Your task to perform on an android device: toggle notifications settings in the gmail app Image 0: 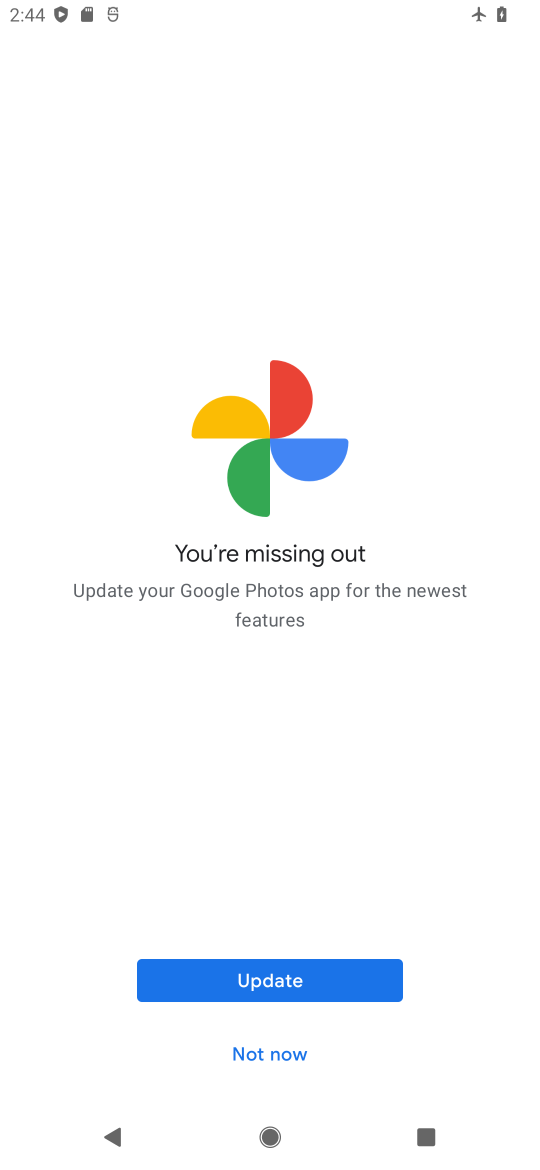
Step 0: press home button
Your task to perform on an android device: toggle notifications settings in the gmail app Image 1: 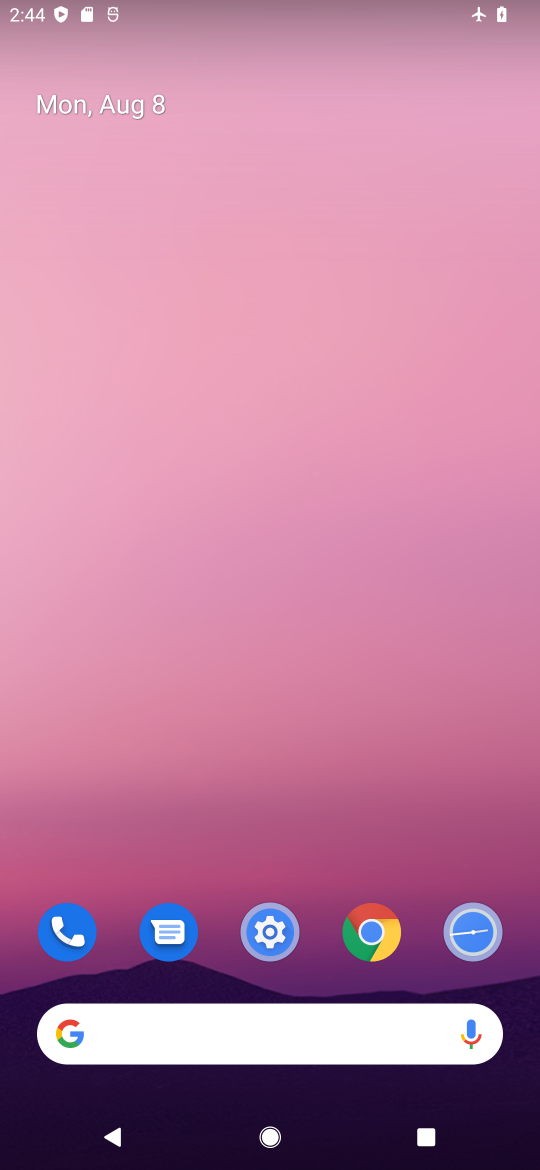
Step 1: drag from (325, 939) to (385, 242)
Your task to perform on an android device: toggle notifications settings in the gmail app Image 2: 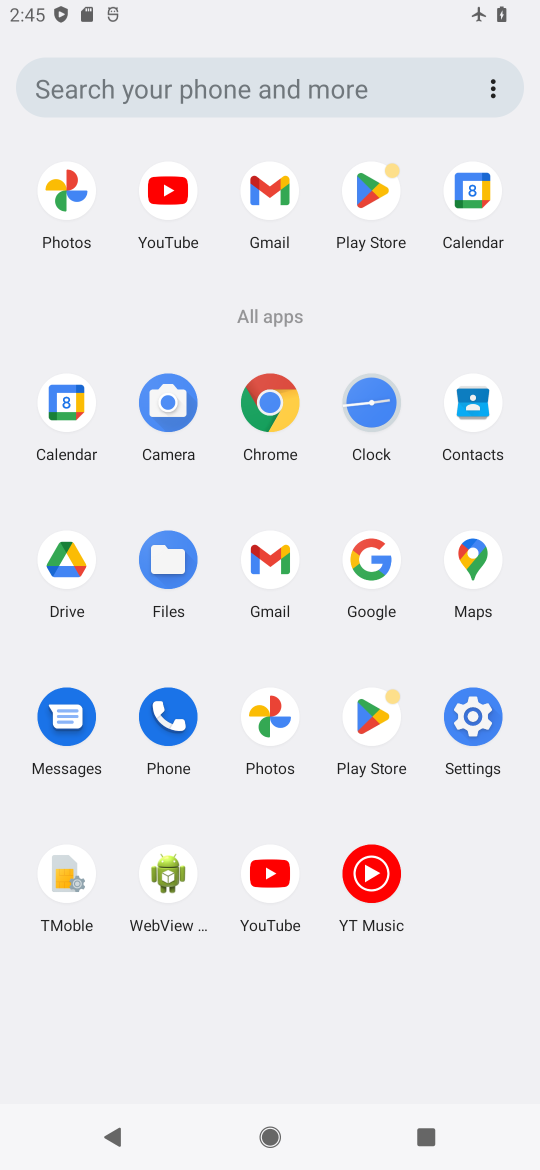
Step 2: click (290, 558)
Your task to perform on an android device: toggle notifications settings in the gmail app Image 3: 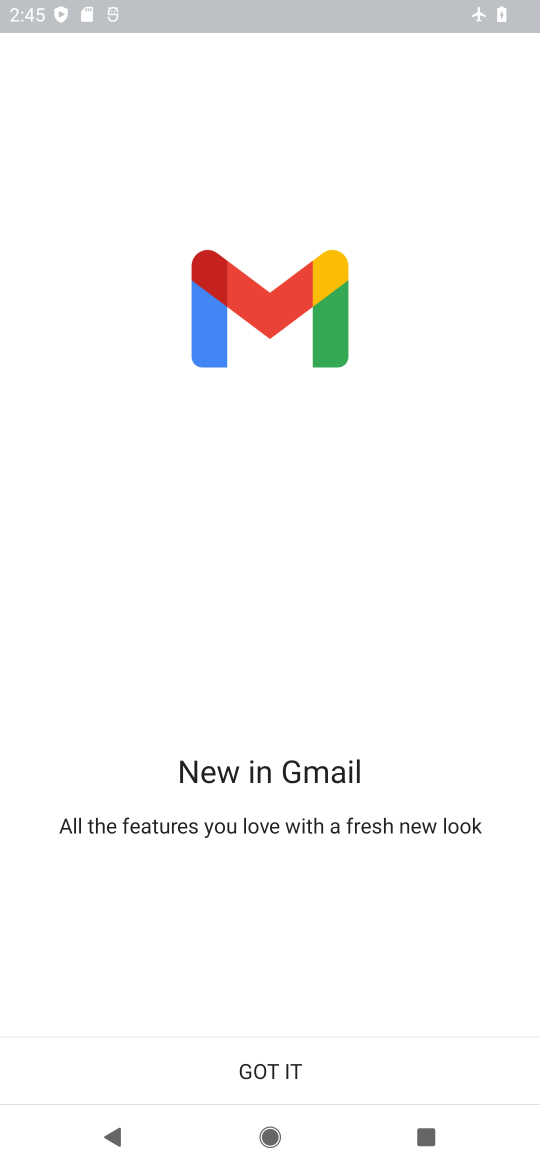
Step 3: click (244, 1084)
Your task to perform on an android device: toggle notifications settings in the gmail app Image 4: 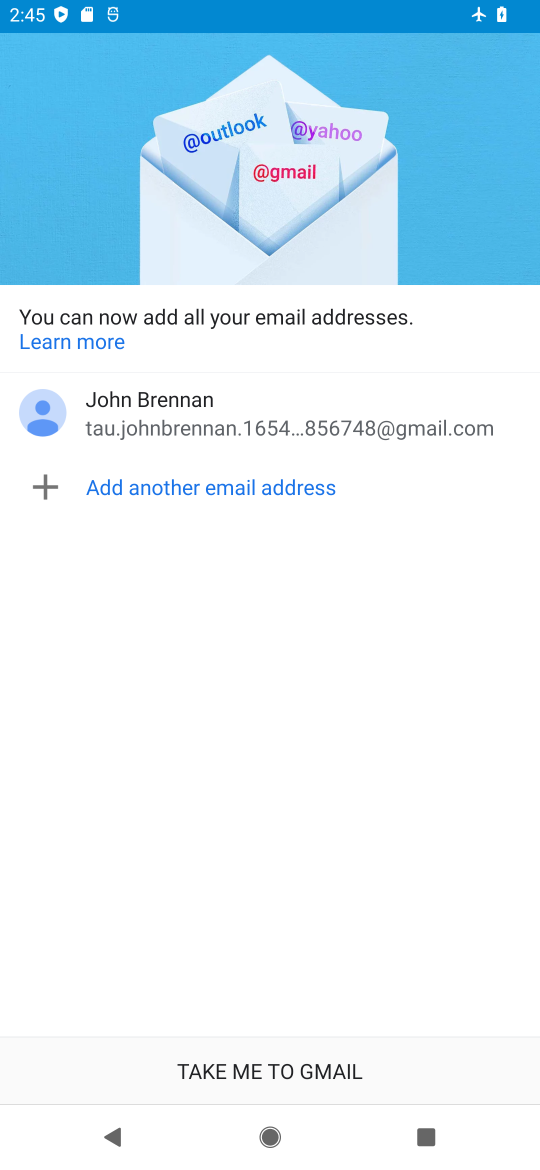
Step 4: click (244, 1084)
Your task to perform on an android device: toggle notifications settings in the gmail app Image 5: 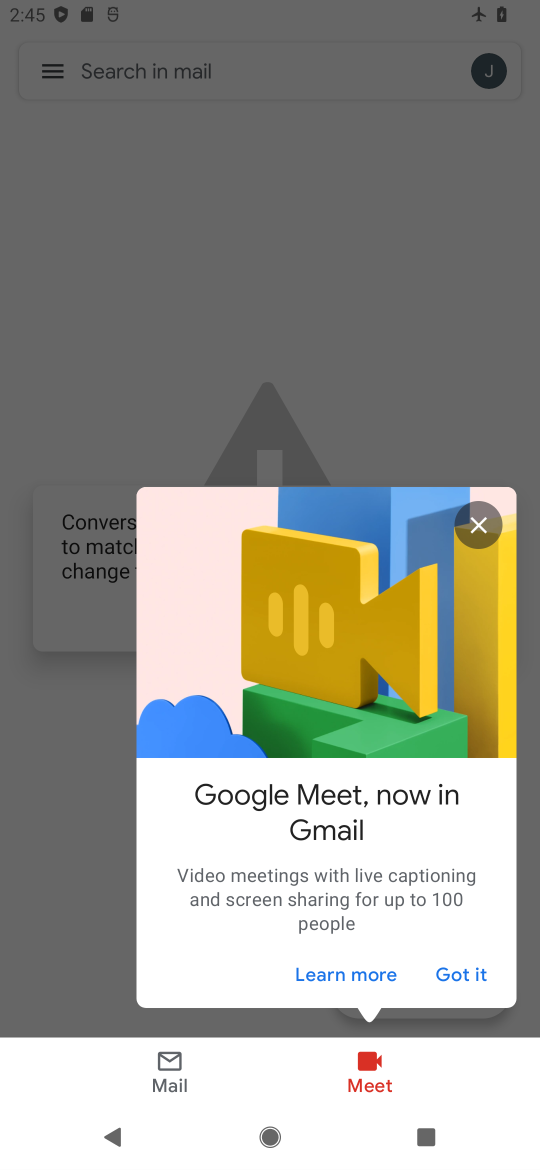
Step 5: click (177, 1045)
Your task to perform on an android device: toggle notifications settings in the gmail app Image 6: 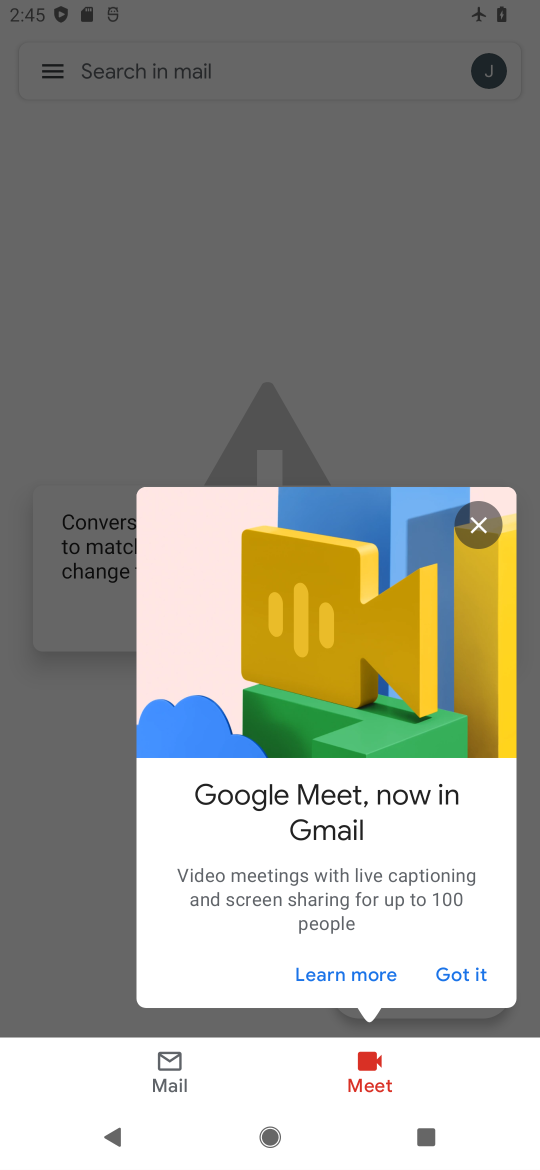
Step 6: click (162, 1061)
Your task to perform on an android device: toggle notifications settings in the gmail app Image 7: 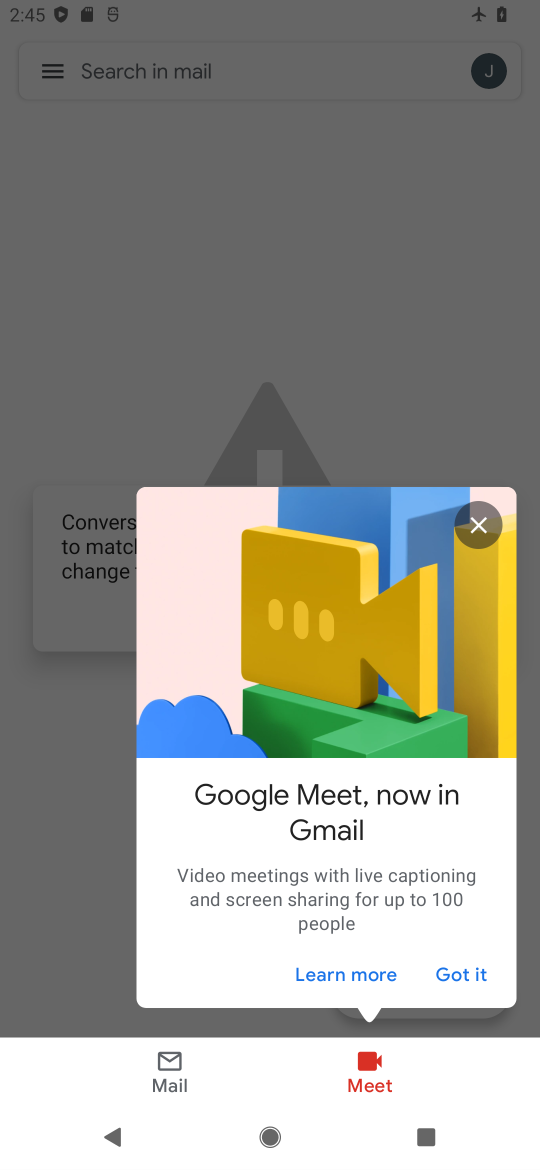
Step 7: click (174, 1055)
Your task to perform on an android device: toggle notifications settings in the gmail app Image 8: 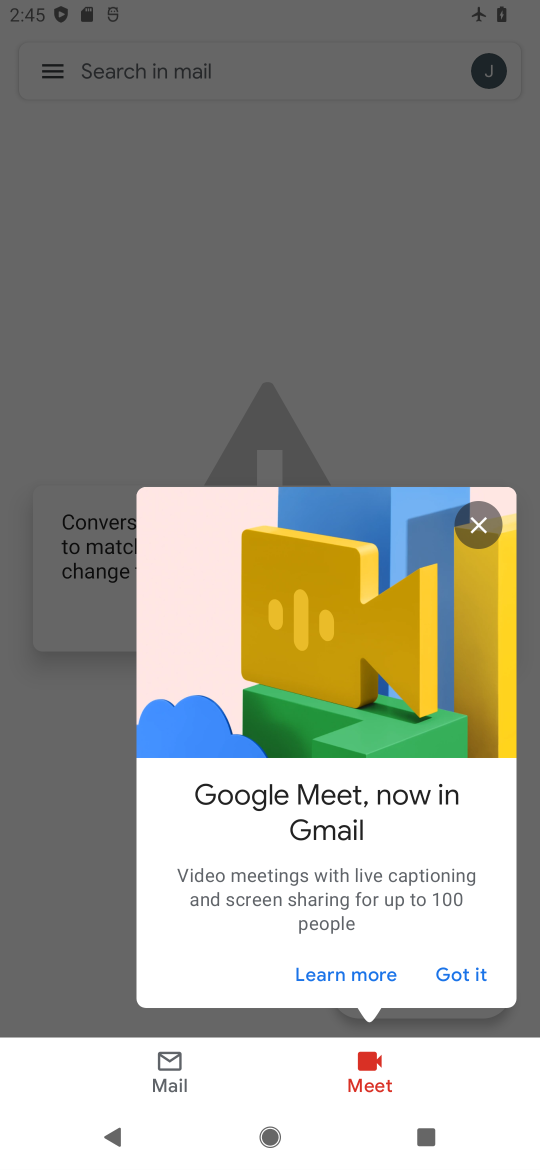
Step 8: click (470, 972)
Your task to perform on an android device: toggle notifications settings in the gmail app Image 9: 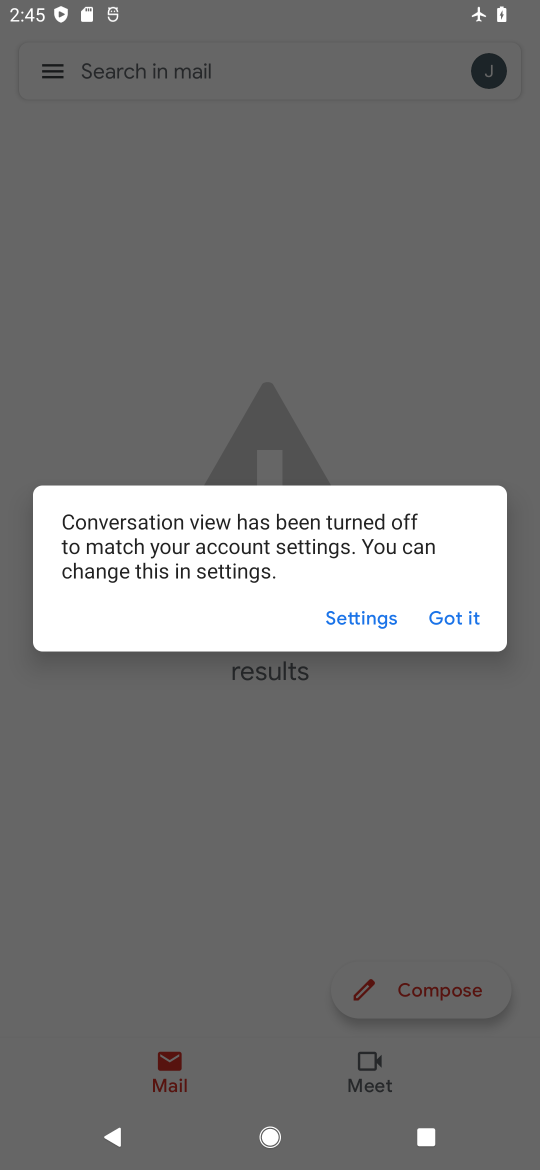
Step 9: click (459, 610)
Your task to perform on an android device: toggle notifications settings in the gmail app Image 10: 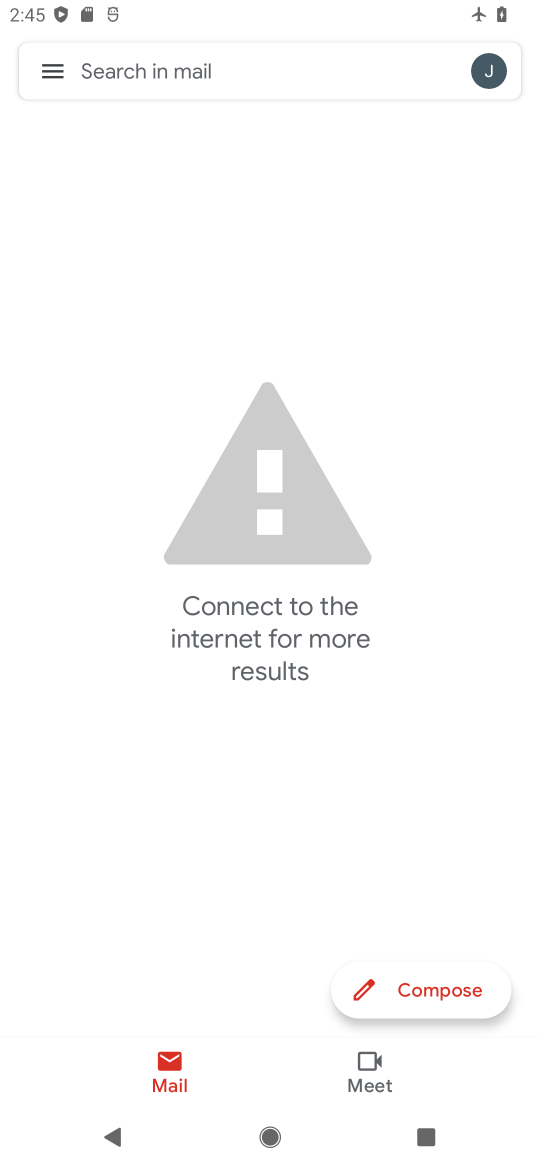
Step 10: click (52, 57)
Your task to perform on an android device: toggle notifications settings in the gmail app Image 11: 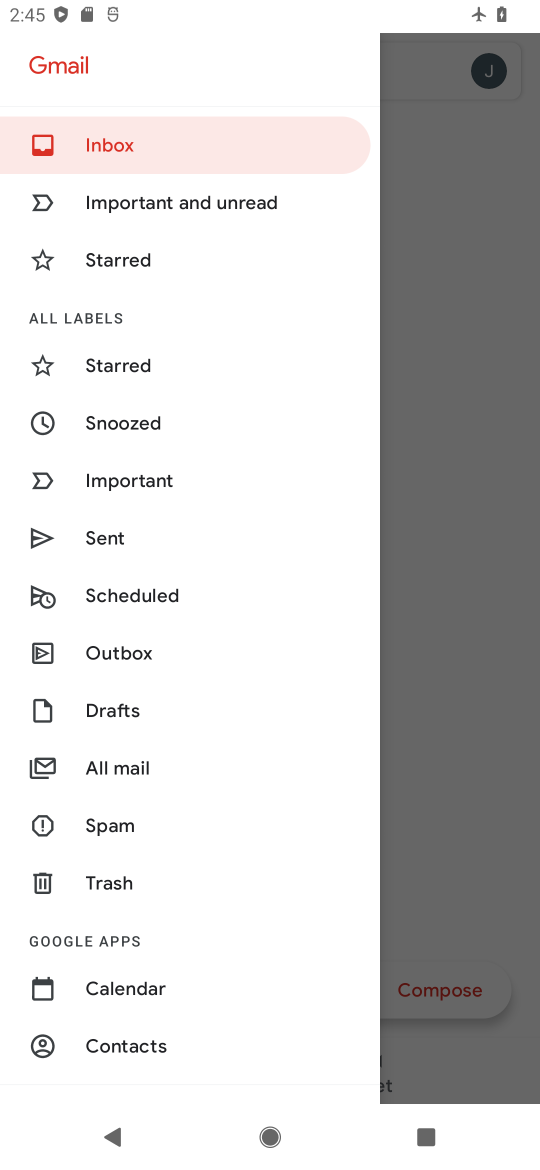
Step 11: drag from (134, 1068) to (236, 561)
Your task to perform on an android device: toggle notifications settings in the gmail app Image 12: 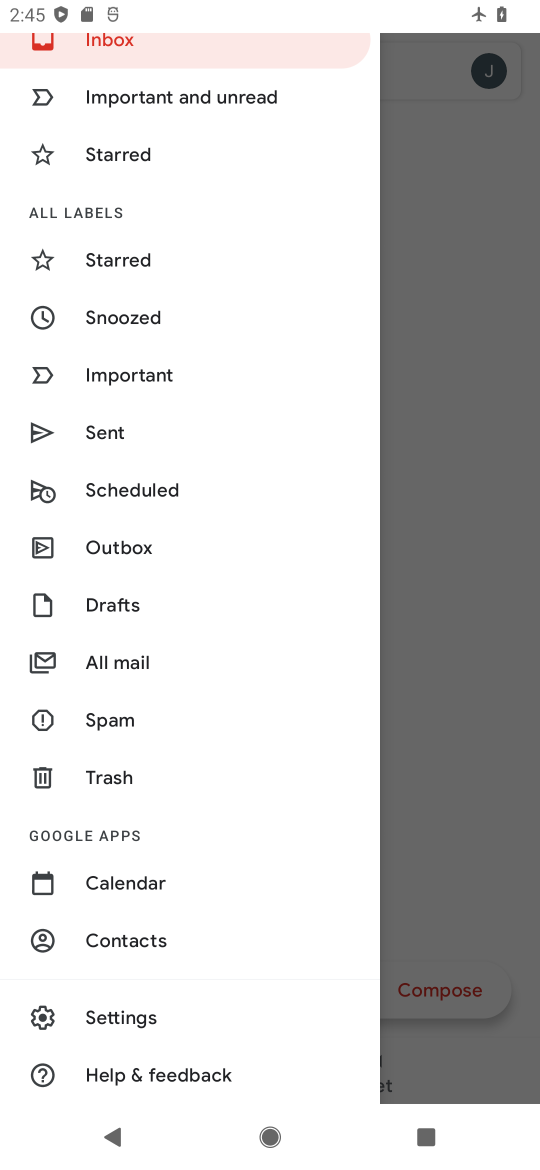
Step 12: click (113, 1014)
Your task to perform on an android device: toggle notifications settings in the gmail app Image 13: 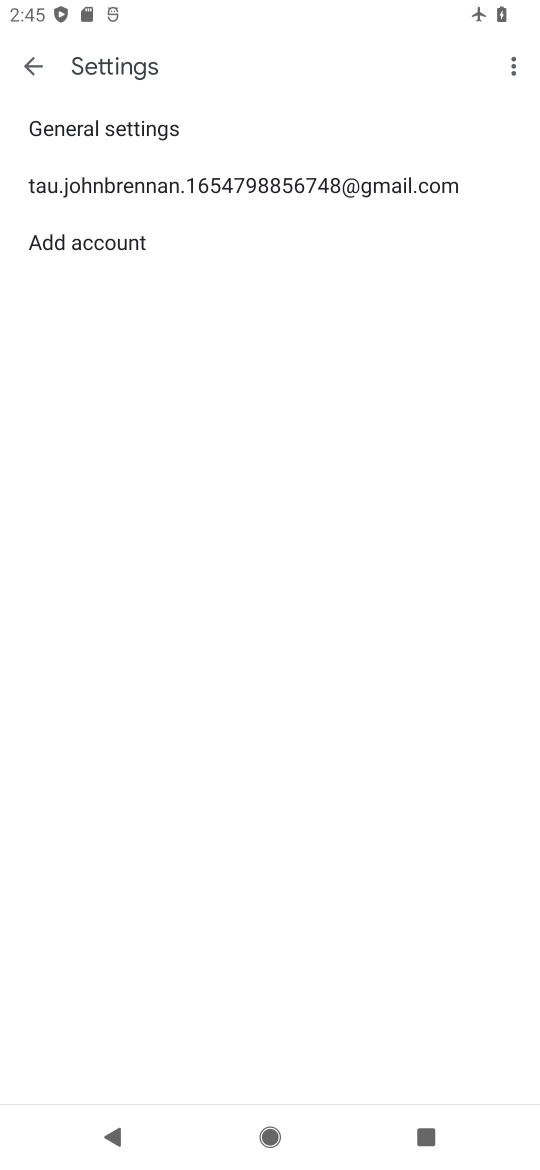
Step 13: click (259, 176)
Your task to perform on an android device: toggle notifications settings in the gmail app Image 14: 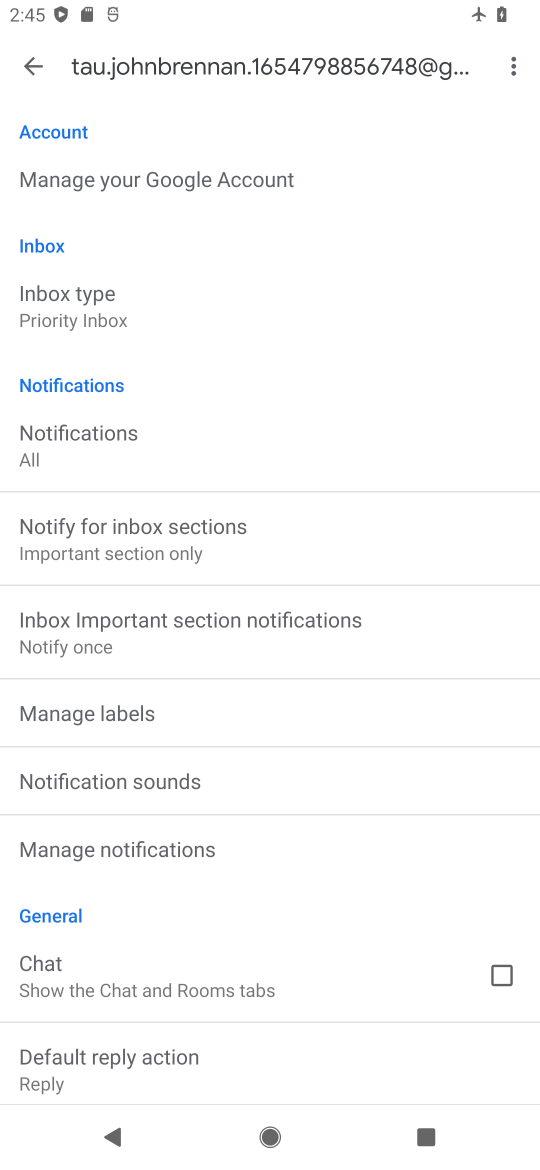
Step 14: click (183, 856)
Your task to perform on an android device: toggle notifications settings in the gmail app Image 15: 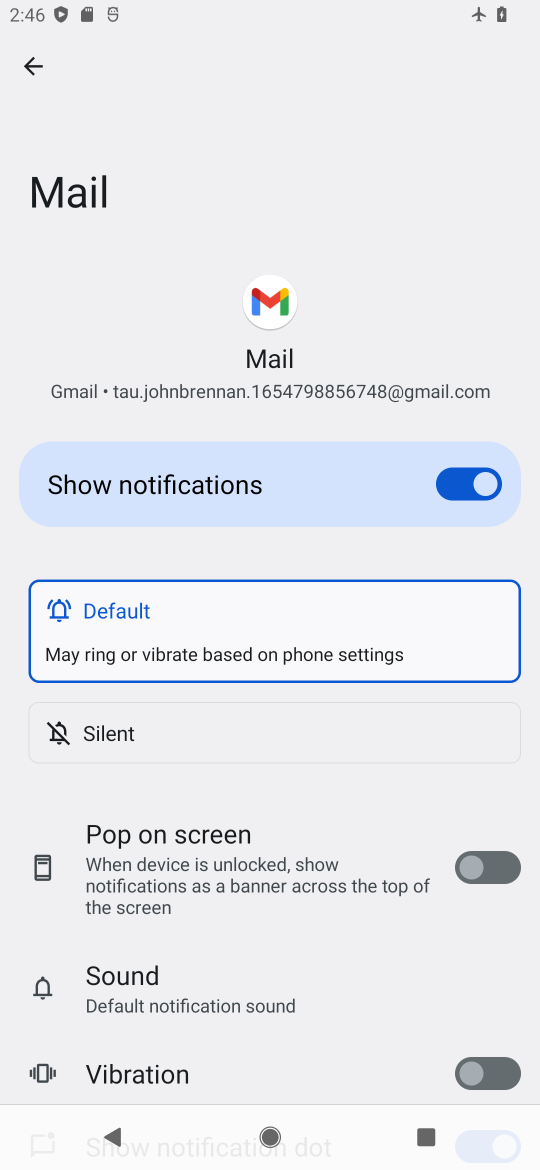
Step 15: click (461, 481)
Your task to perform on an android device: toggle notifications settings in the gmail app Image 16: 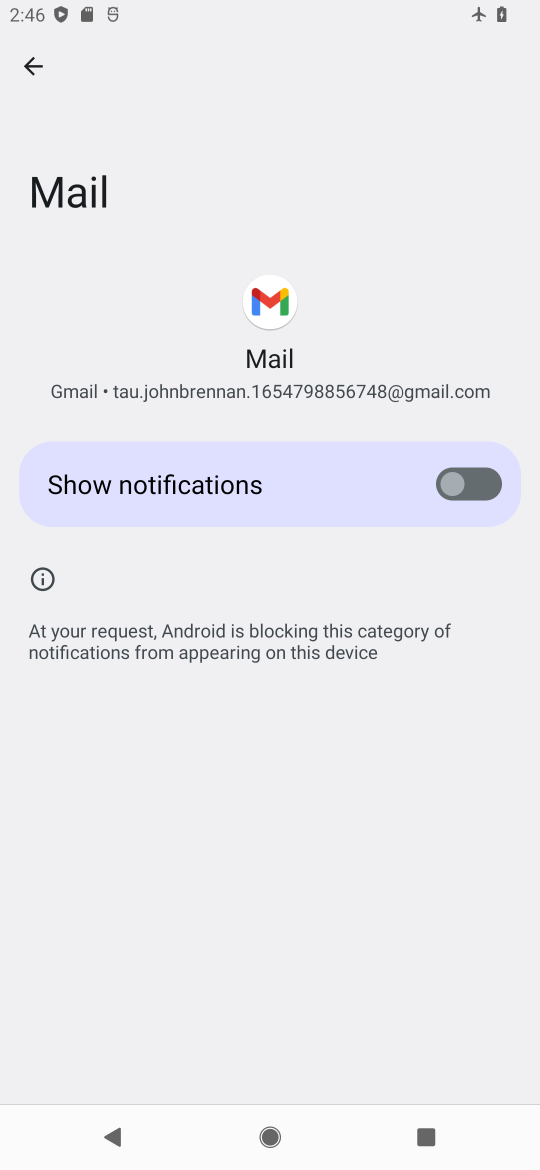
Step 16: task complete